Your task to perform on an android device: turn off sleep mode Image 0: 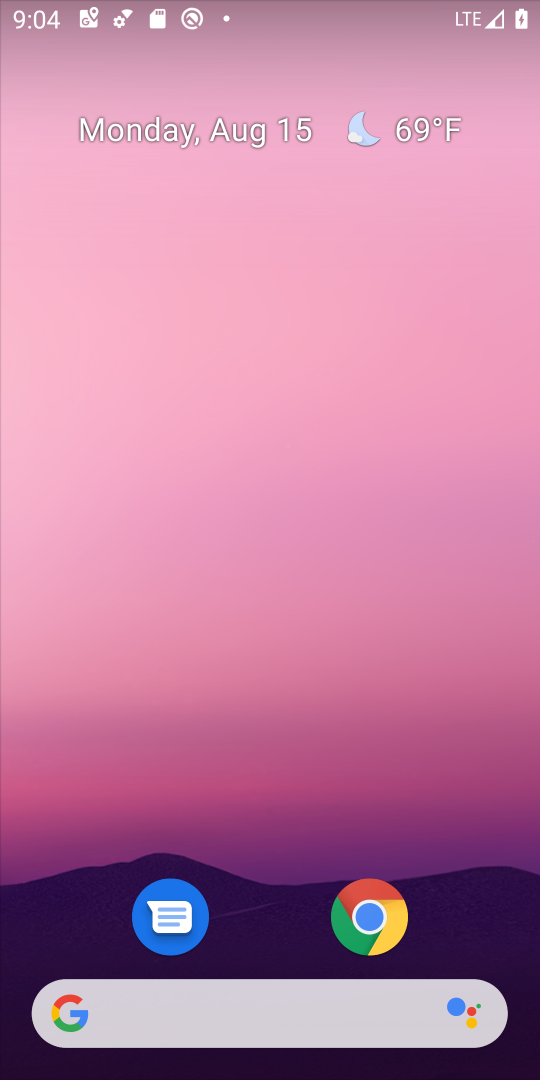
Step 0: drag from (321, 815) to (253, 20)
Your task to perform on an android device: turn off sleep mode Image 1: 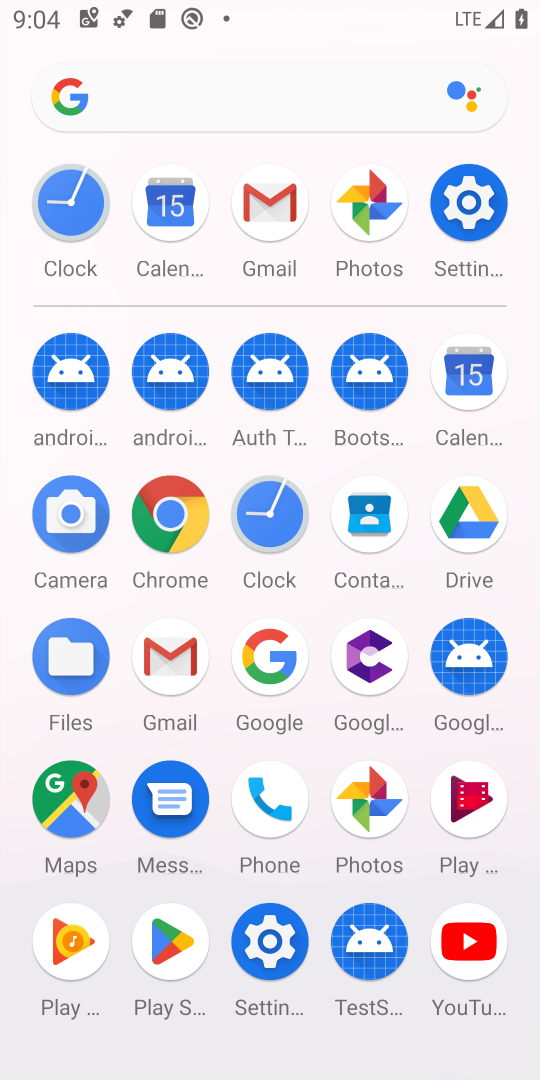
Step 1: click (469, 203)
Your task to perform on an android device: turn off sleep mode Image 2: 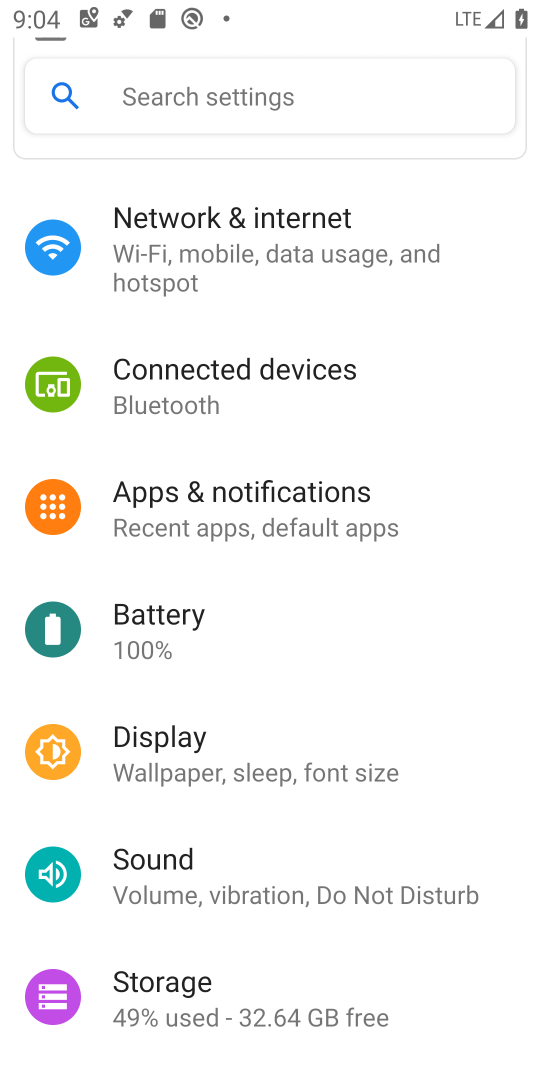
Step 2: click (254, 772)
Your task to perform on an android device: turn off sleep mode Image 3: 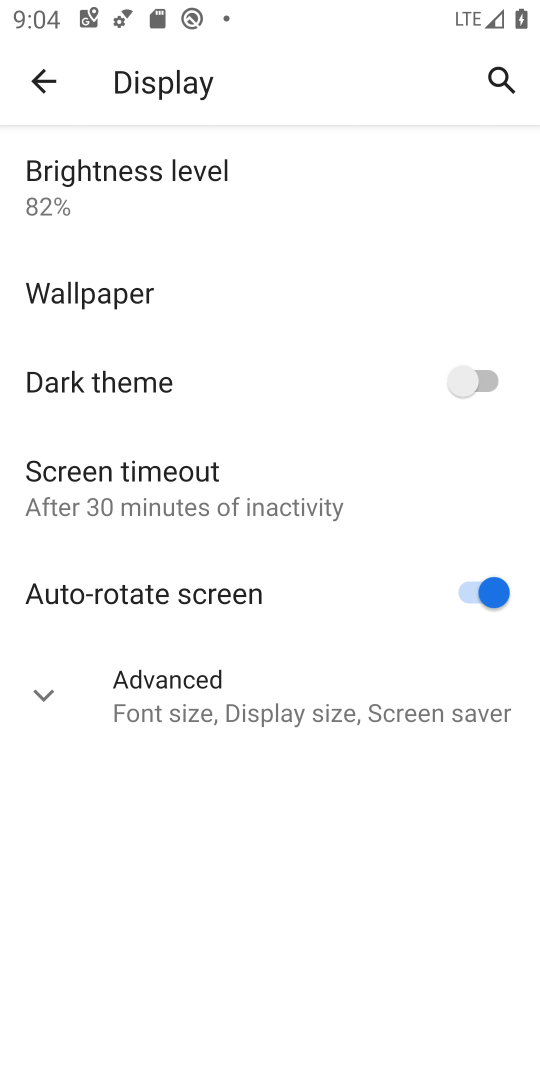
Step 3: click (38, 692)
Your task to perform on an android device: turn off sleep mode Image 4: 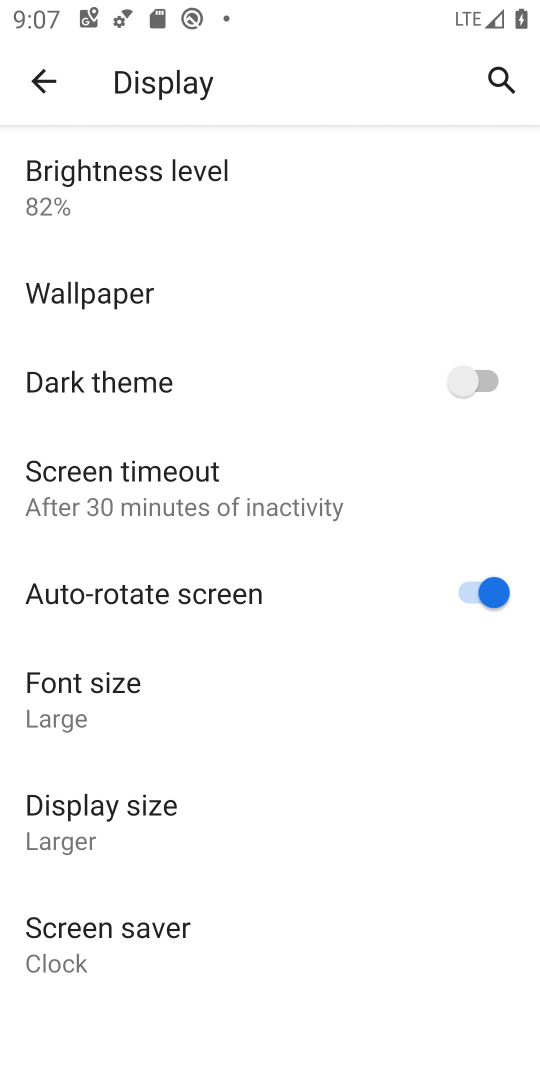
Step 4: task complete